Your task to perform on an android device: Open Google Image 0: 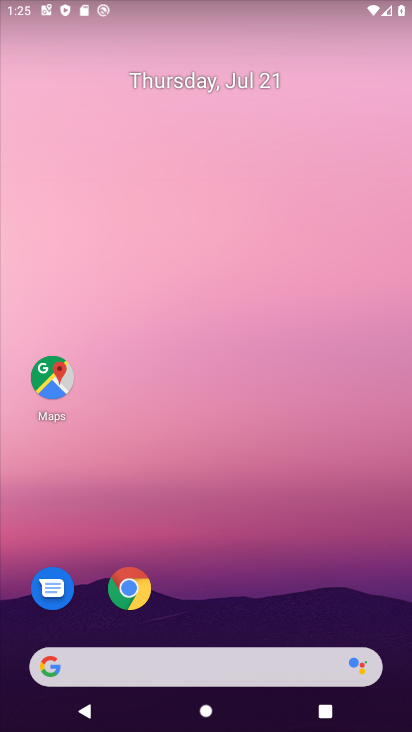
Step 0: drag from (316, 610) to (194, 97)
Your task to perform on an android device: Open Google Image 1: 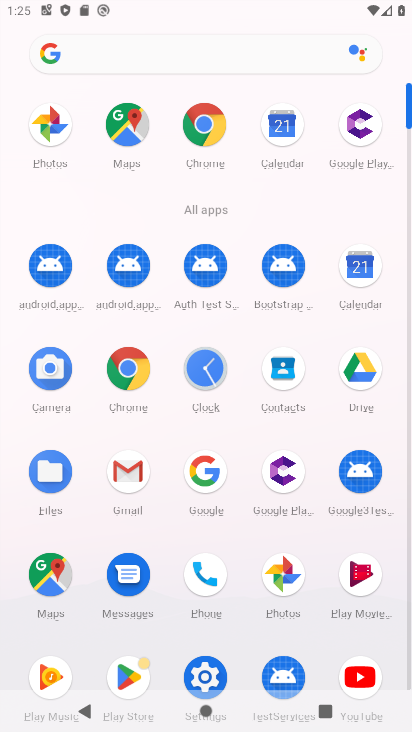
Step 1: click (199, 121)
Your task to perform on an android device: Open Google Image 2: 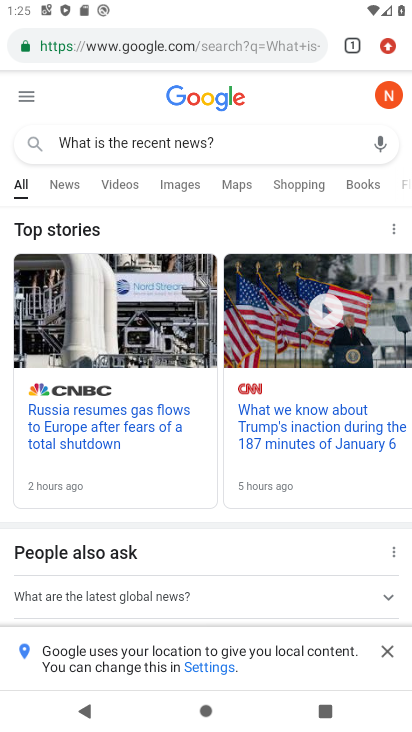
Step 2: press home button
Your task to perform on an android device: Open Google Image 3: 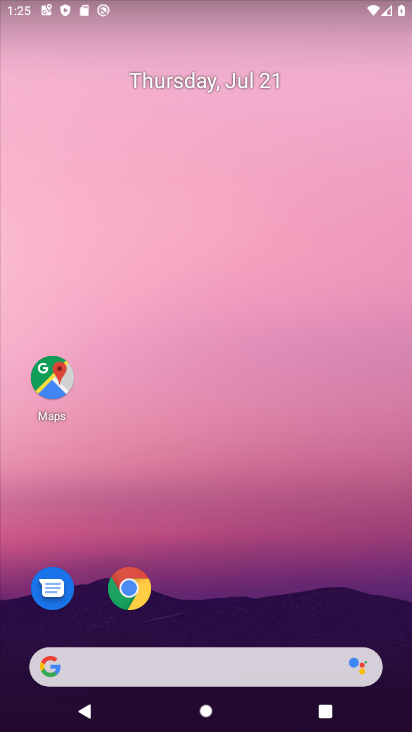
Step 3: drag from (232, 595) to (135, 125)
Your task to perform on an android device: Open Google Image 4: 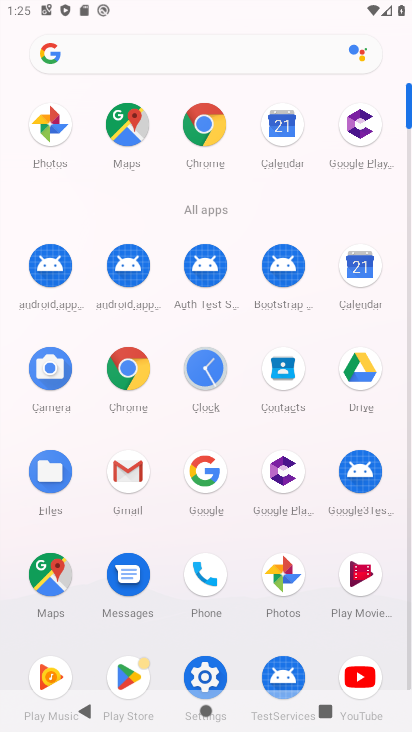
Step 4: click (294, 1)
Your task to perform on an android device: Open Google Image 5: 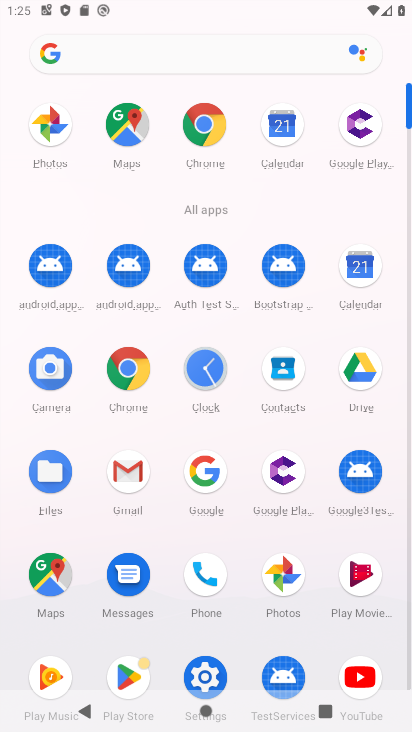
Step 5: click (214, 475)
Your task to perform on an android device: Open Google Image 6: 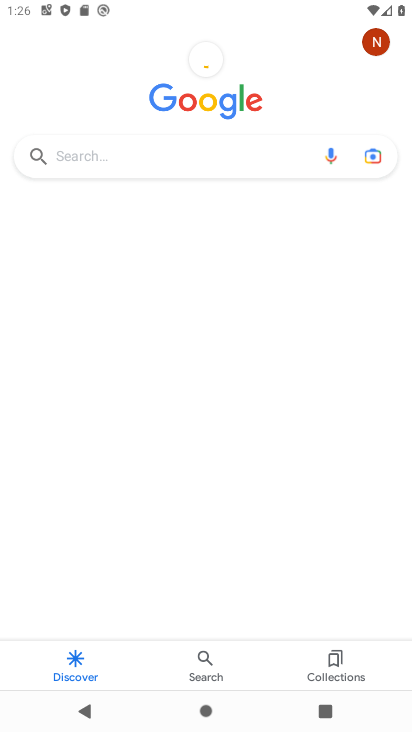
Step 6: task complete